Your task to perform on an android device: open sync settings in chrome Image 0: 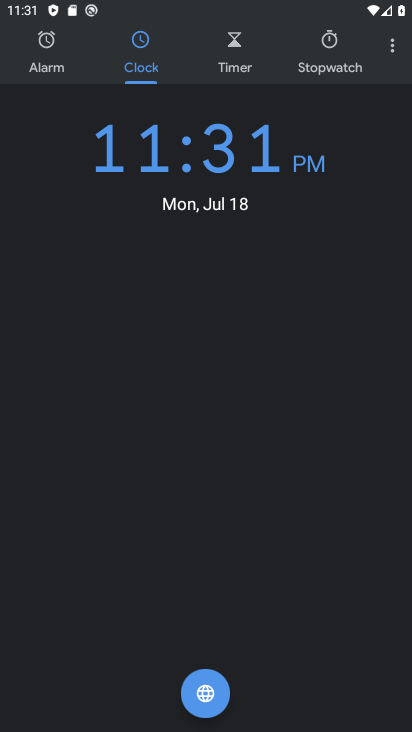
Step 0: press home button
Your task to perform on an android device: open sync settings in chrome Image 1: 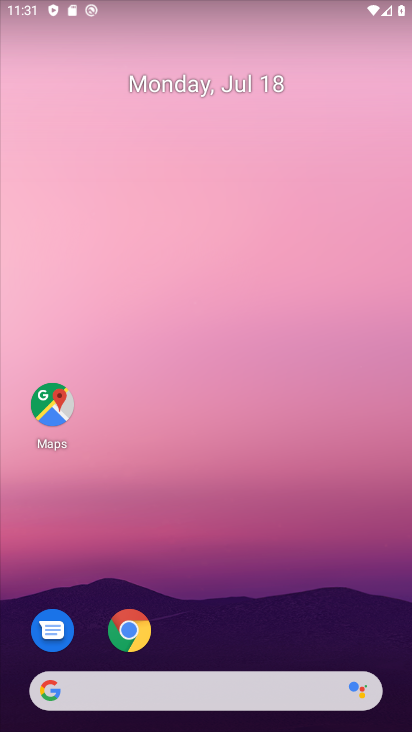
Step 1: click (136, 635)
Your task to perform on an android device: open sync settings in chrome Image 2: 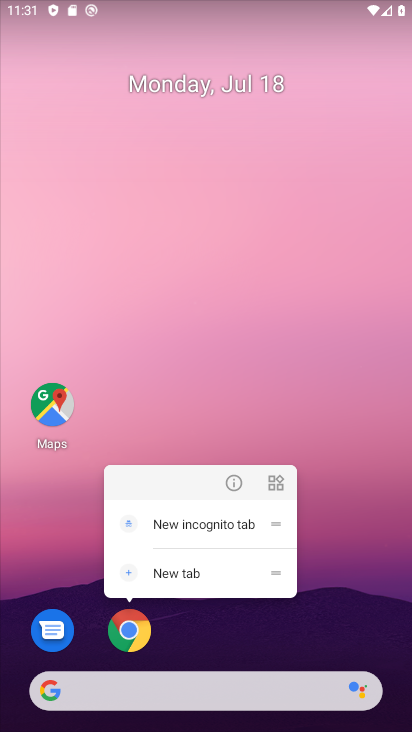
Step 2: click (138, 637)
Your task to perform on an android device: open sync settings in chrome Image 3: 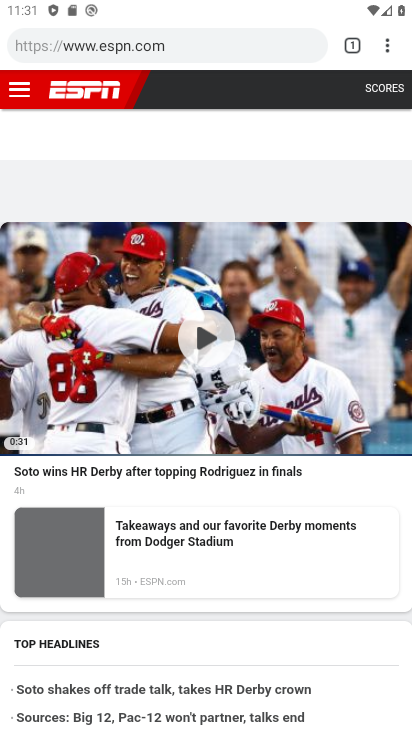
Step 3: click (389, 46)
Your task to perform on an android device: open sync settings in chrome Image 4: 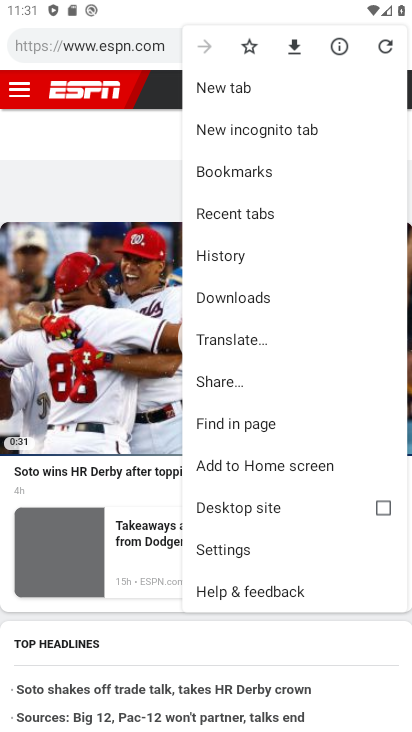
Step 4: click (233, 551)
Your task to perform on an android device: open sync settings in chrome Image 5: 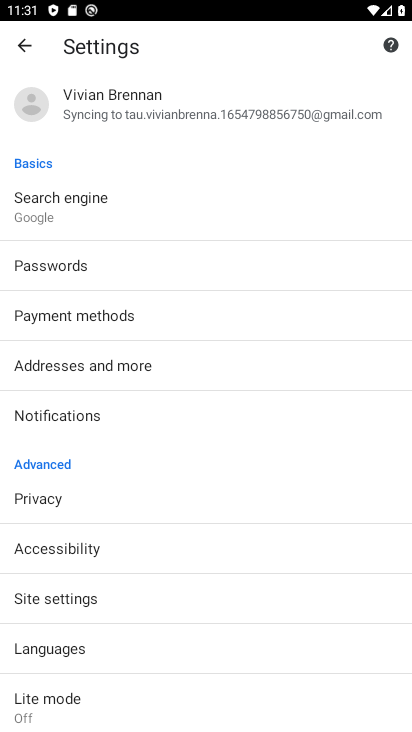
Step 5: click (182, 110)
Your task to perform on an android device: open sync settings in chrome Image 6: 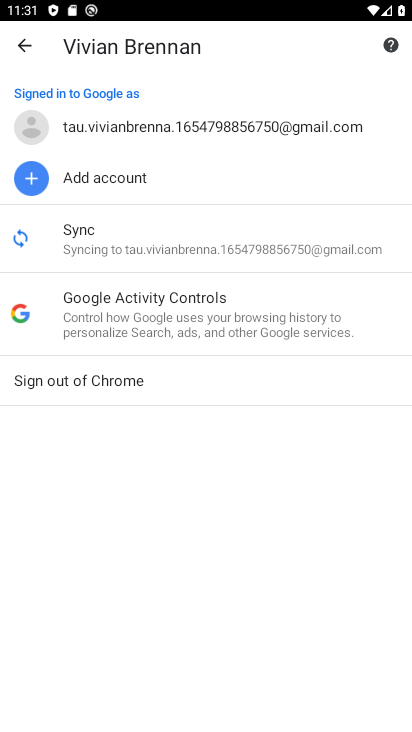
Step 6: click (172, 258)
Your task to perform on an android device: open sync settings in chrome Image 7: 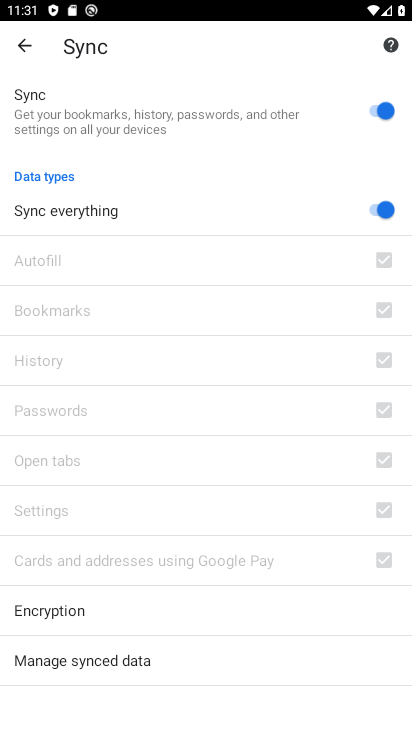
Step 7: task complete